Your task to perform on an android device: check storage Image 0: 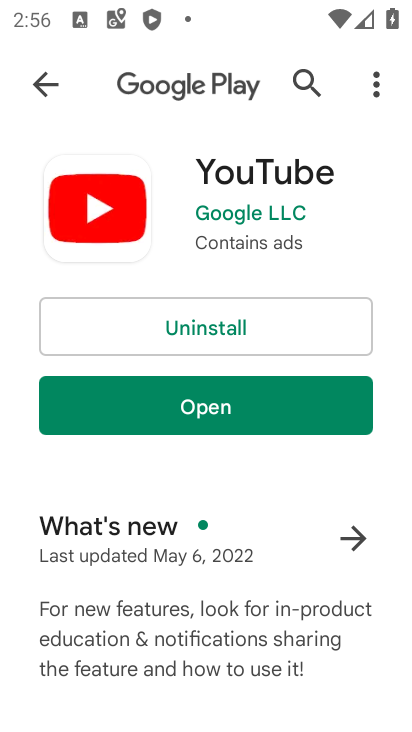
Step 0: press home button
Your task to perform on an android device: check storage Image 1: 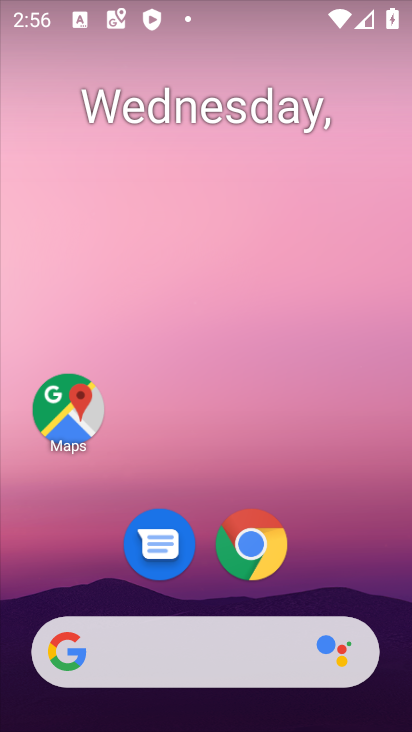
Step 1: drag from (385, 618) to (305, 128)
Your task to perform on an android device: check storage Image 2: 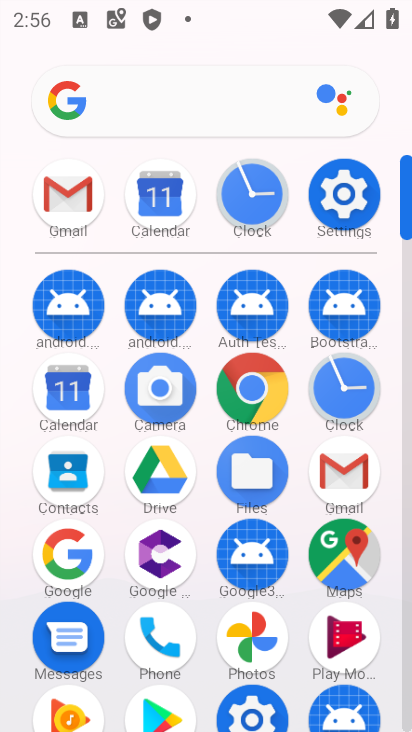
Step 2: click (408, 705)
Your task to perform on an android device: check storage Image 3: 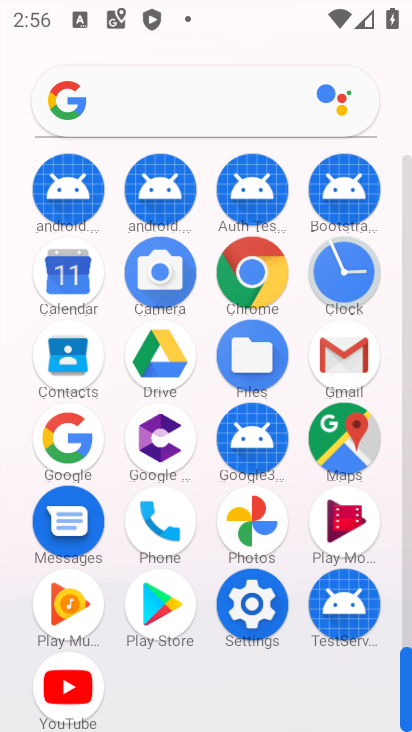
Step 3: click (250, 607)
Your task to perform on an android device: check storage Image 4: 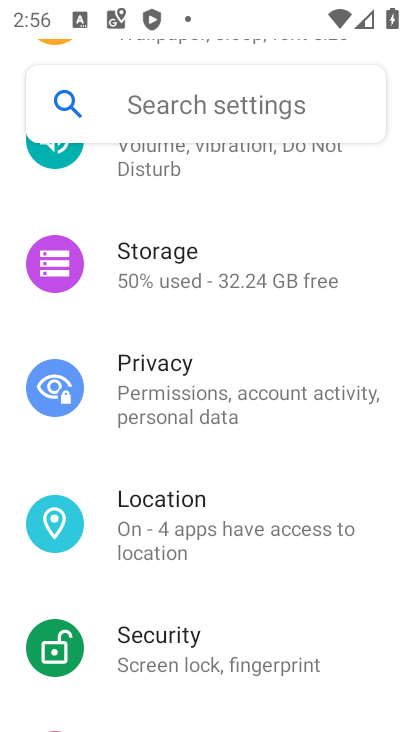
Step 4: click (152, 251)
Your task to perform on an android device: check storage Image 5: 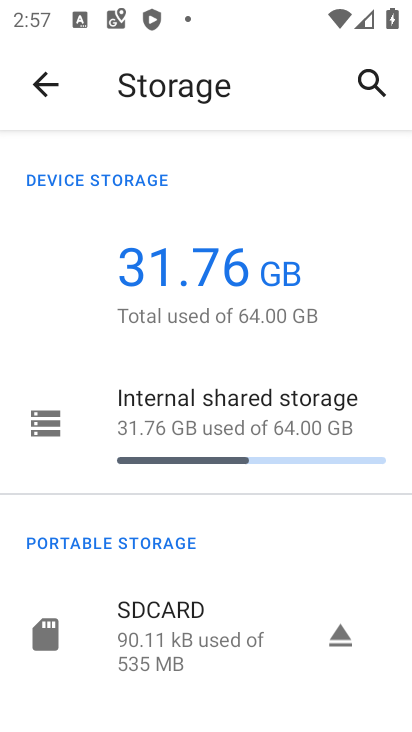
Step 5: task complete